Your task to perform on an android device: see tabs open on other devices in the chrome app Image 0: 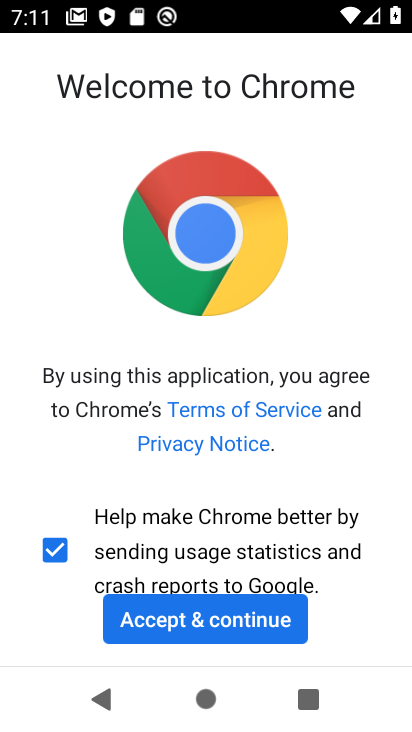
Step 0: press home button
Your task to perform on an android device: see tabs open on other devices in the chrome app Image 1: 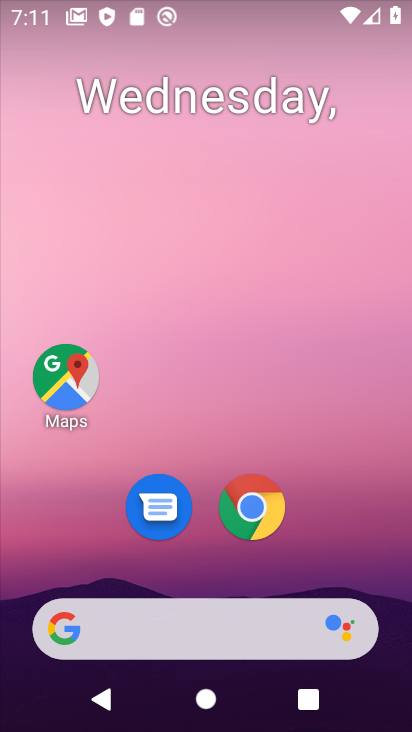
Step 1: drag from (236, 666) to (285, 183)
Your task to perform on an android device: see tabs open on other devices in the chrome app Image 2: 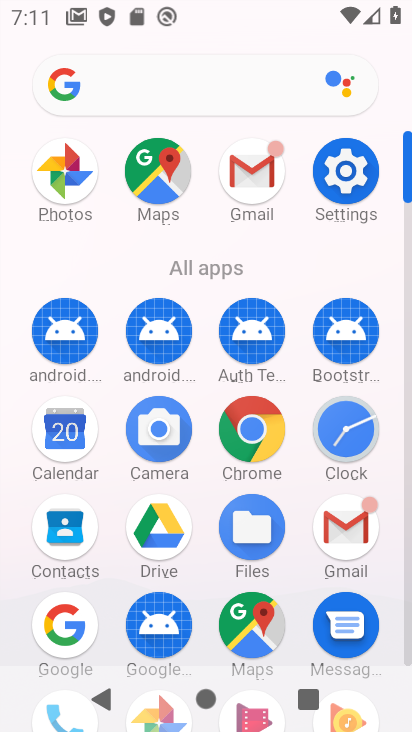
Step 2: click (251, 417)
Your task to perform on an android device: see tabs open on other devices in the chrome app Image 3: 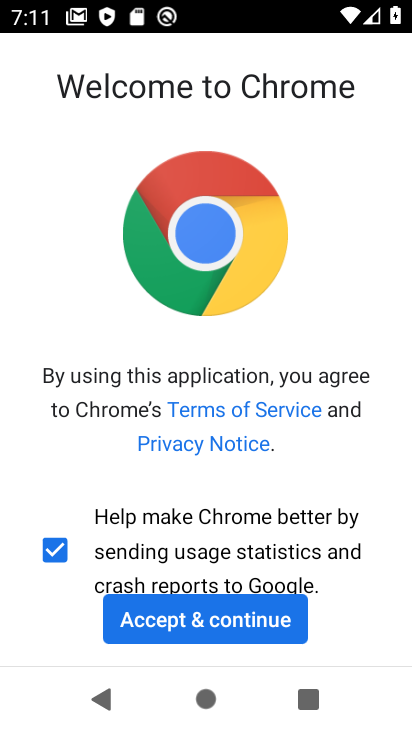
Step 3: click (180, 623)
Your task to perform on an android device: see tabs open on other devices in the chrome app Image 4: 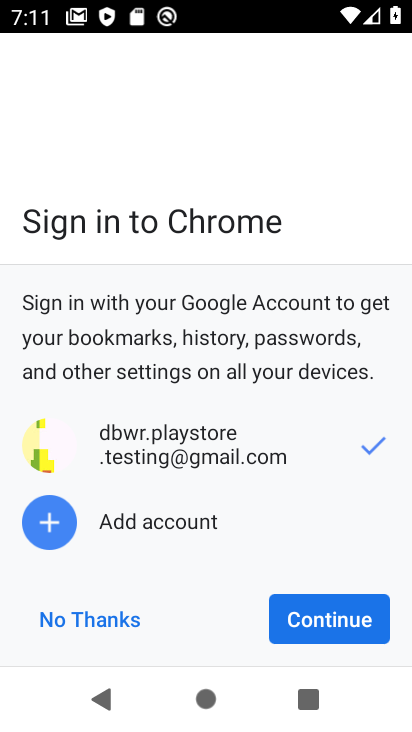
Step 4: click (354, 613)
Your task to perform on an android device: see tabs open on other devices in the chrome app Image 5: 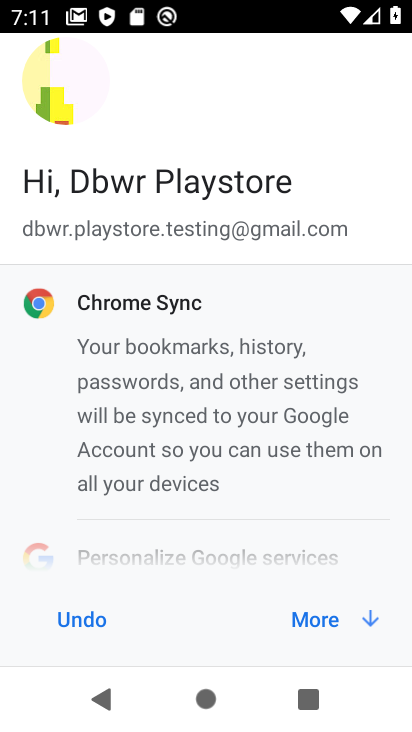
Step 5: click (367, 617)
Your task to perform on an android device: see tabs open on other devices in the chrome app Image 6: 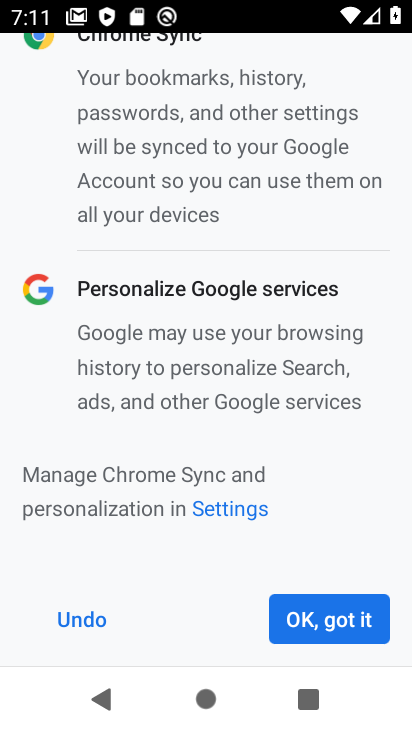
Step 6: drag from (280, 416) to (292, 287)
Your task to perform on an android device: see tabs open on other devices in the chrome app Image 7: 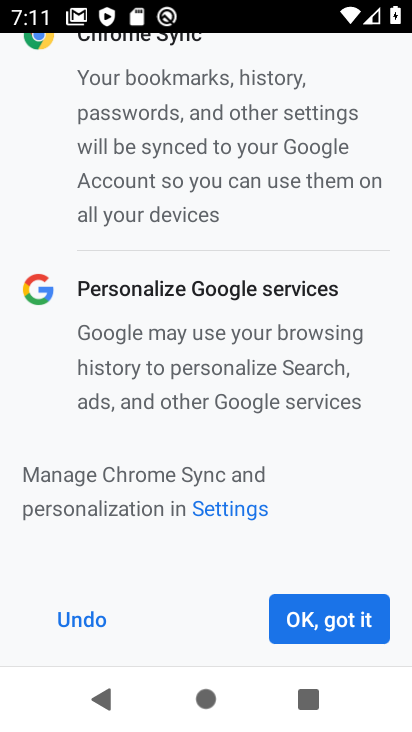
Step 7: click (338, 631)
Your task to perform on an android device: see tabs open on other devices in the chrome app Image 8: 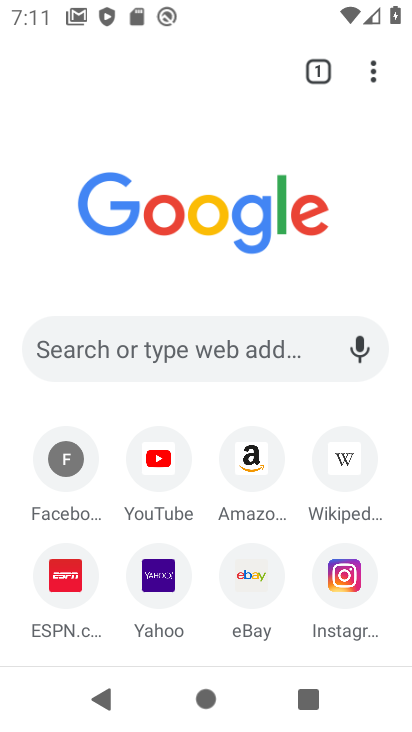
Step 8: click (321, 72)
Your task to perform on an android device: see tabs open on other devices in the chrome app Image 9: 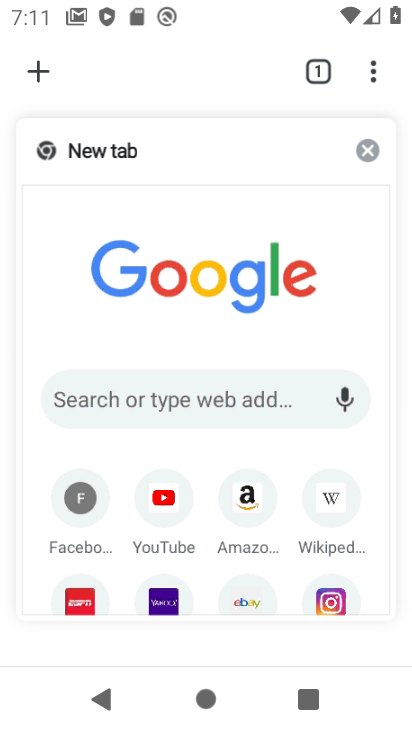
Step 9: task complete